Your task to perform on an android device: Search for pizza restaurants on Maps Image 0: 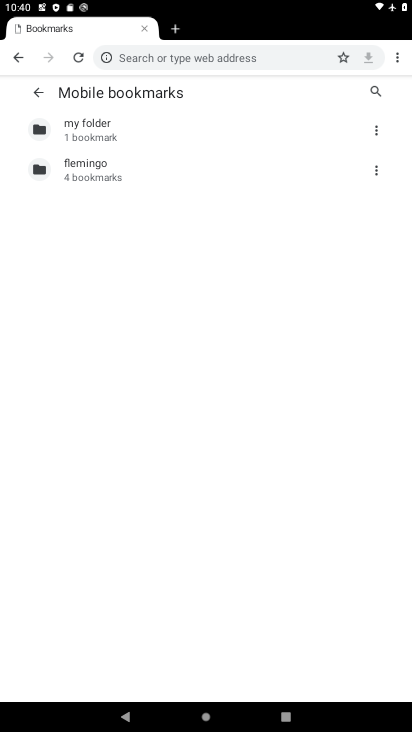
Step 0: task complete